Your task to perform on an android device: Open Google Image 0: 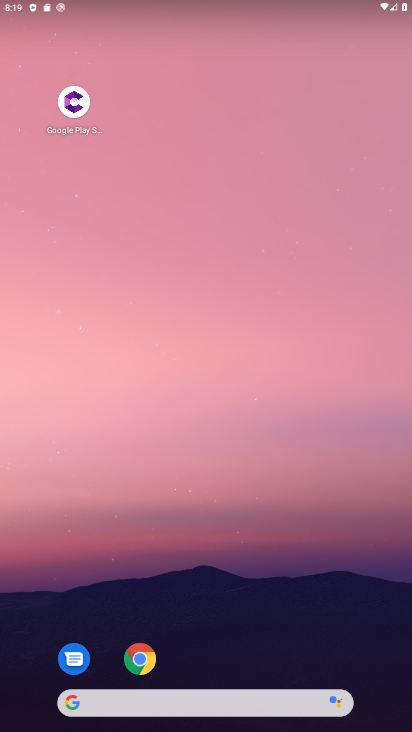
Step 0: drag from (265, 666) to (284, 2)
Your task to perform on an android device: Open Google Image 1: 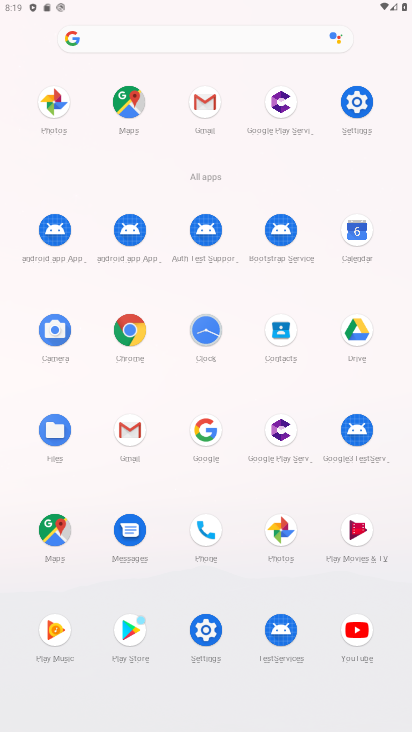
Step 1: click (206, 422)
Your task to perform on an android device: Open Google Image 2: 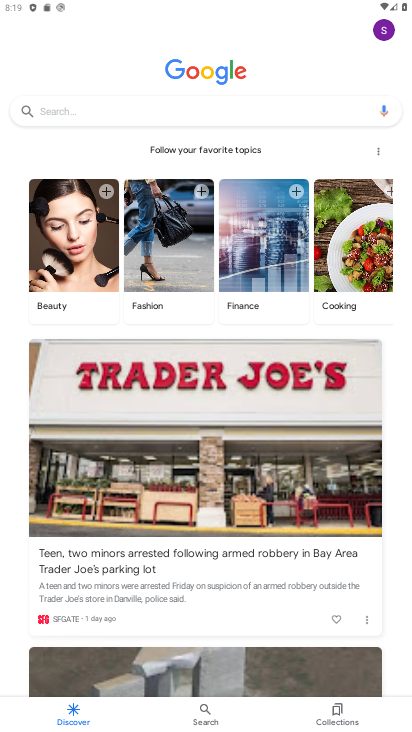
Step 2: task complete